Your task to perform on an android device: Open my contact list Image 0: 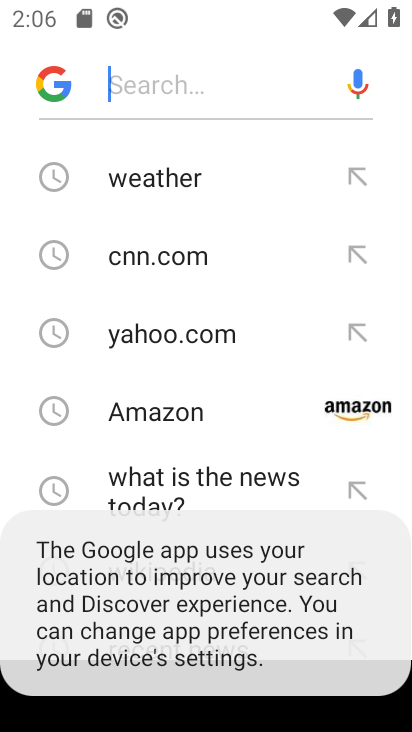
Step 0: press back button
Your task to perform on an android device: Open my contact list Image 1: 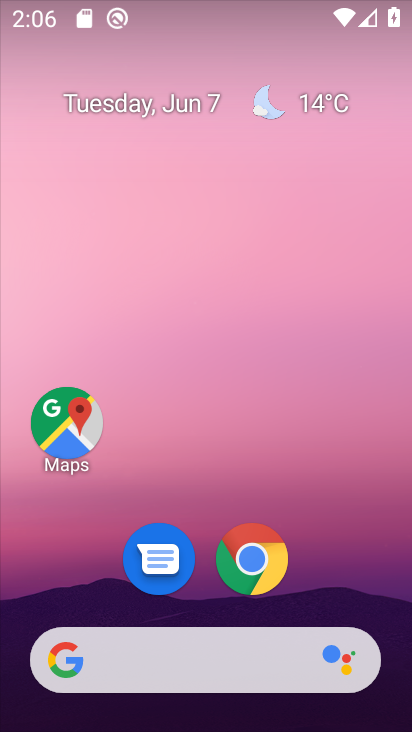
Step 1: drag from (304, 493) to (240, 14)
Your task to perform on an android device: Open my contact list Image 2: 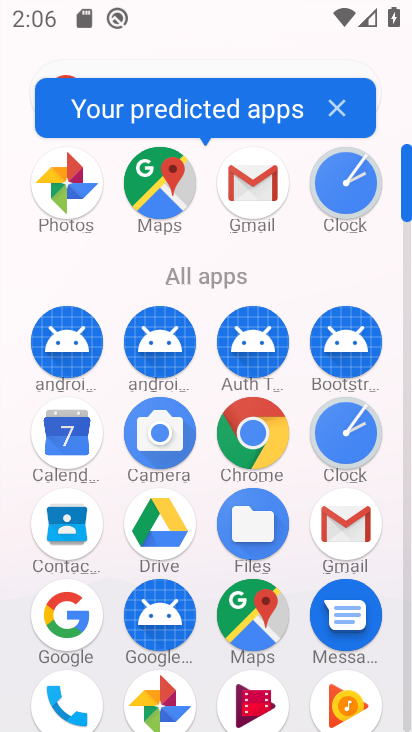
Step 2: drag from (9, 592) to (18, 315)
Your task to perform on an android device: Open my contact list Image 3: 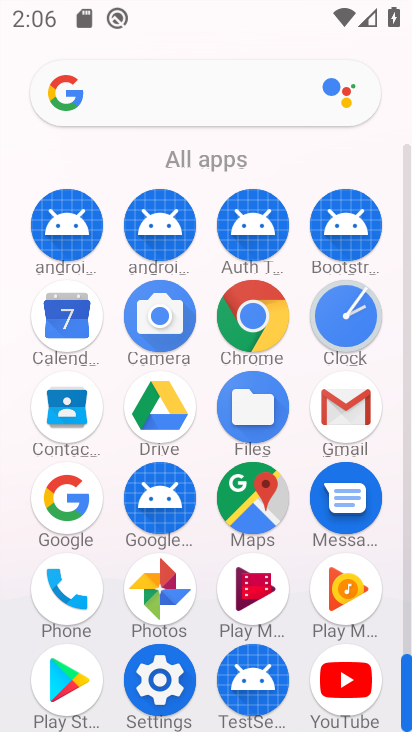
Step 3: click (64, 403)
Your task to perform on an android device: Open my contact list Image 4: 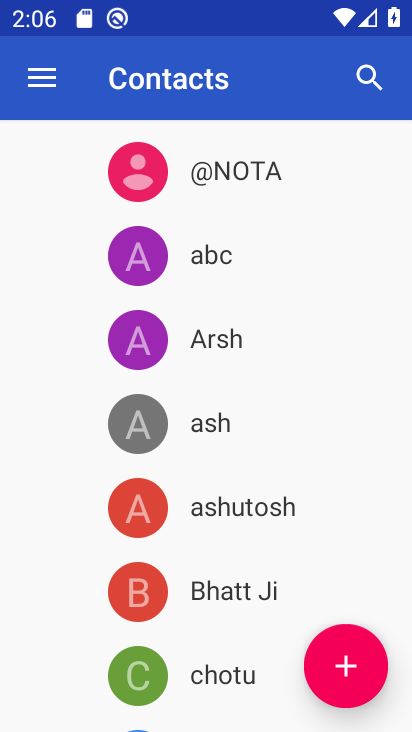
Step 4: task complete